Your task to perform on an android device: Go to accessibility settings Image 0: 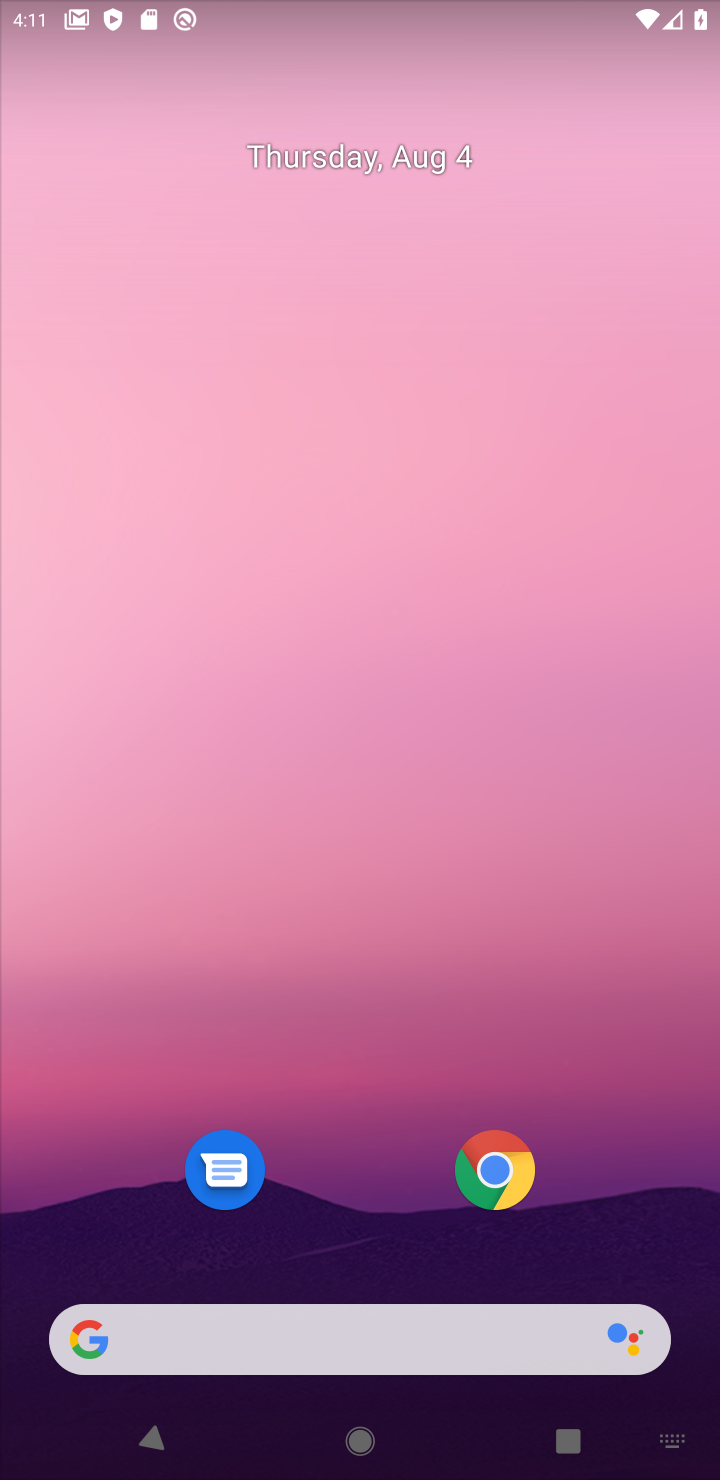
Step 0: drag from (645, 1227) to (359, 230)
Your task to perform on an android device: Go to accessibility settings Image 1: 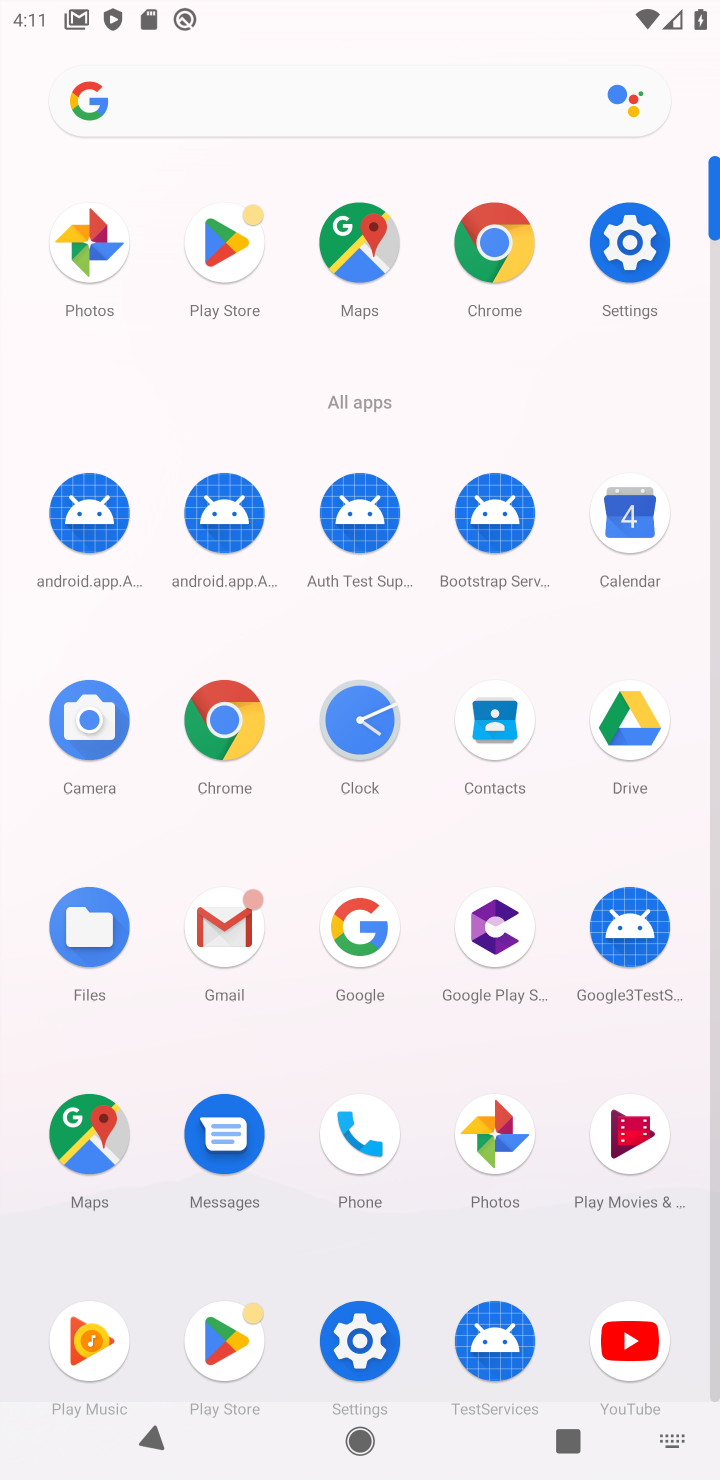
Step 1: click (644, 251)
Your task to perform on an android device: Go to accessibility settings Image 2: 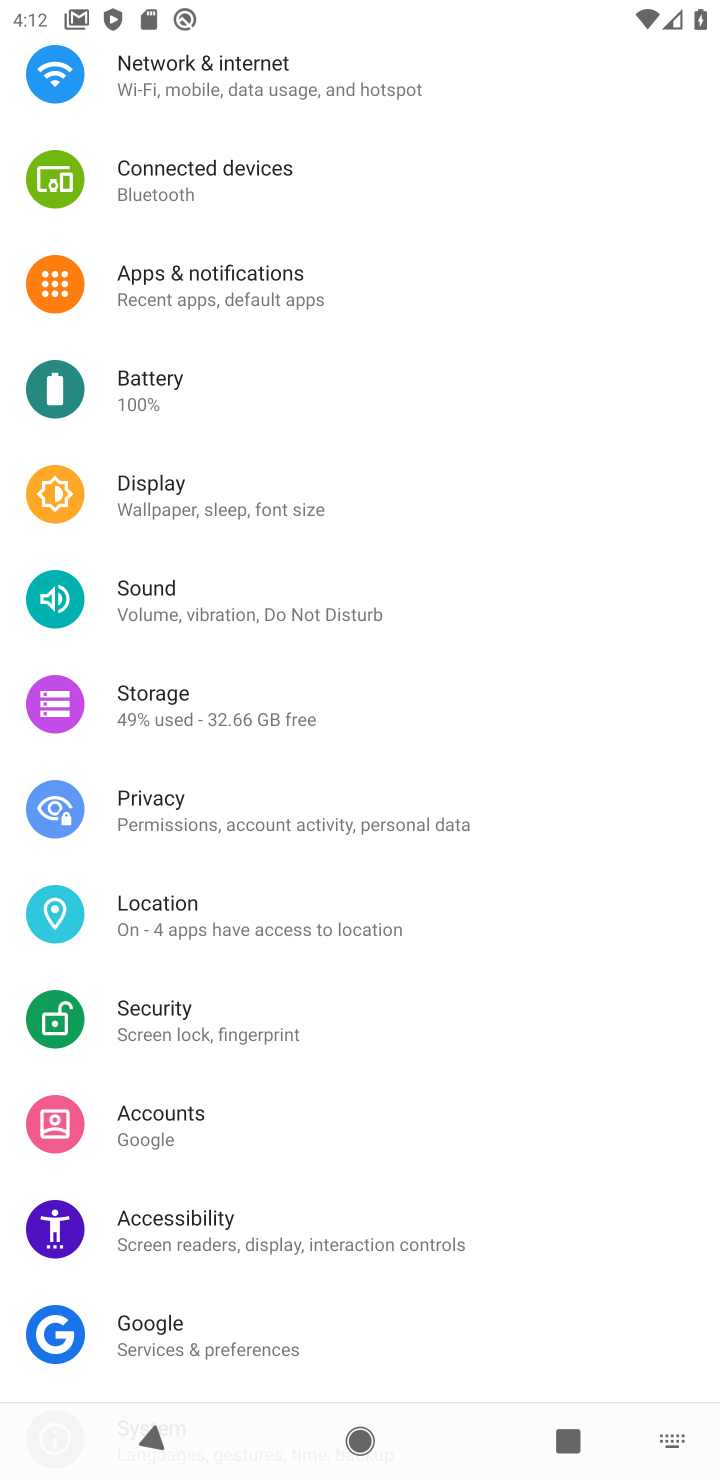
Step 2: click (319, 1246)
Your task to perform on an android device: Go to accessibility settings Image 3: 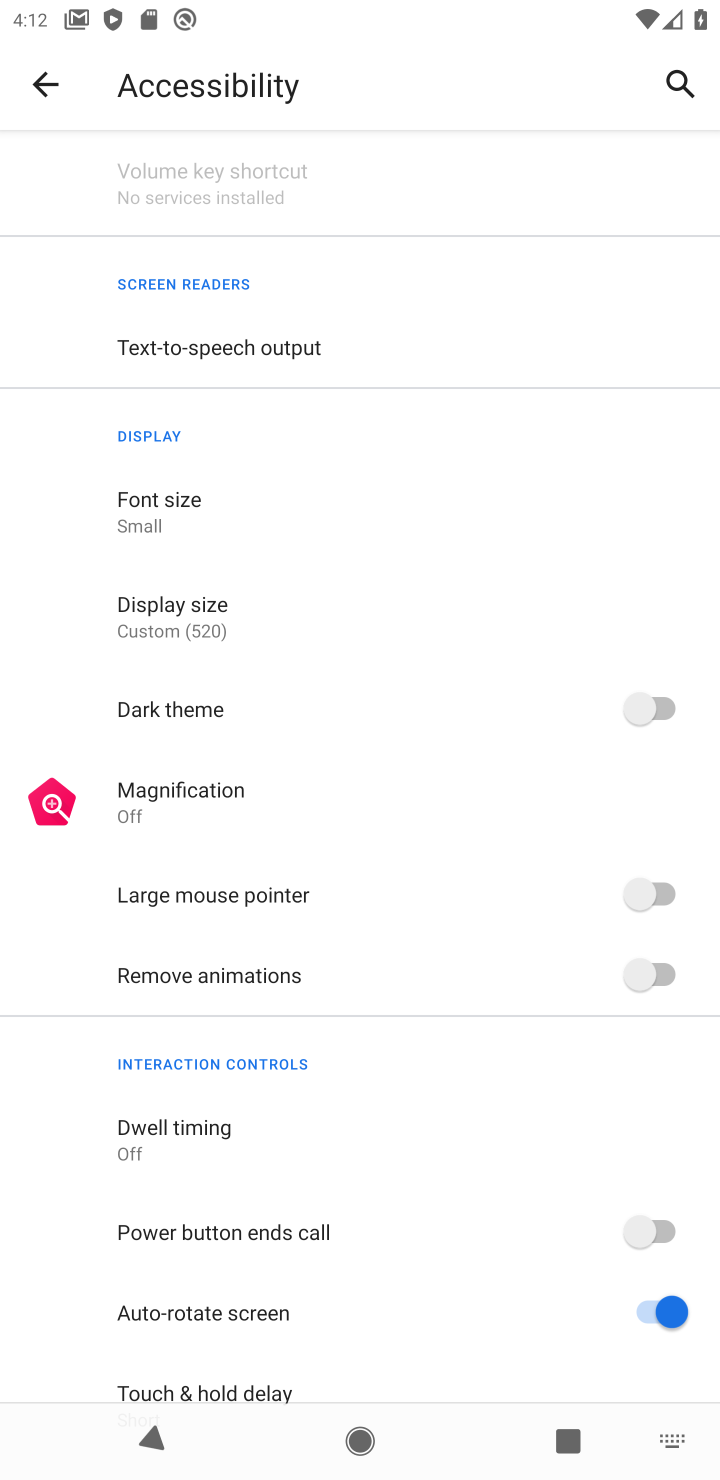
Step 3: task complete